Your task to perform on an android device: open app "Nova Launcher" Image 0: 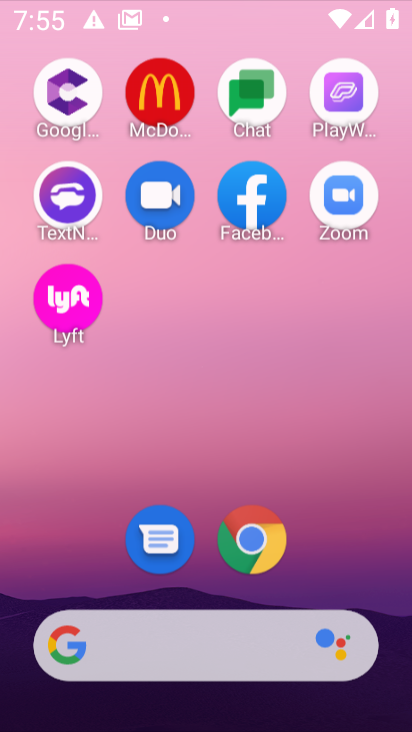
Step 0: press home button
Your task to perform on an android device: open app "Nova Launcher" Image 1: 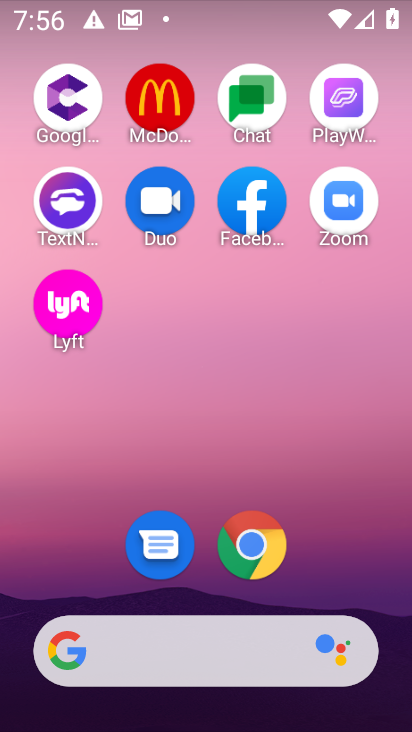
Step 1: drag from (360, 579) to (351, 87)
Your task to perform on an android device: open app "Nova Launcher" Image 2: 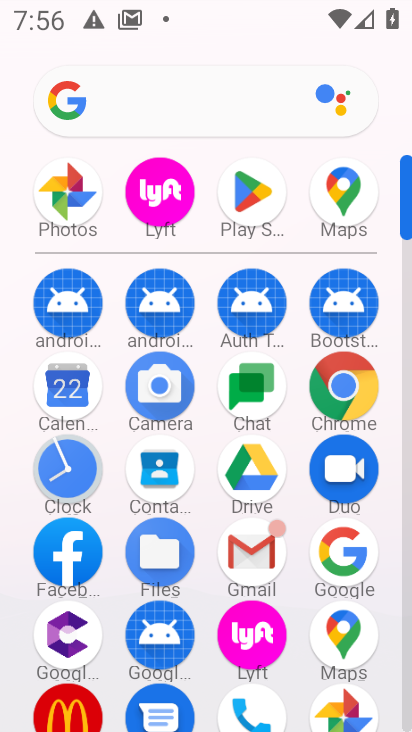
Step 2: click (247, 204)
Your task to perform on an android device: open app "Nova Launcher" Image 3: 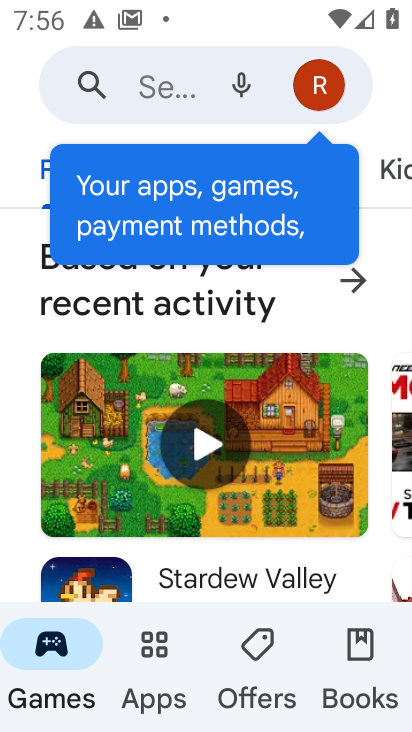
Step 3: click (188, 85)
Your task to perform on an android device: open app "Nova Launcher" Image 4: 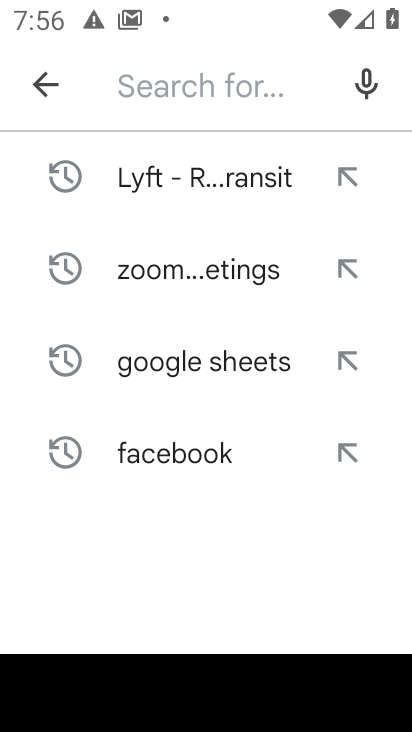
Step 4: type "nova launcher"
Your task to perform on an android device: open app "Nova Launcher" Image 5: 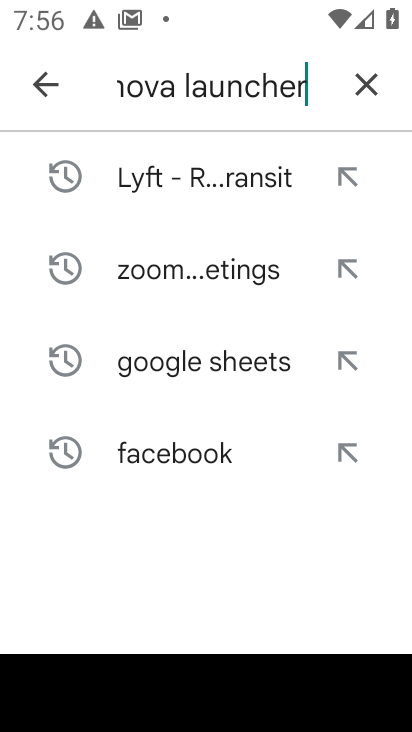
Step 5: press enter
Your task to perform on an android device: open app "Nova Launcher" Image 6: 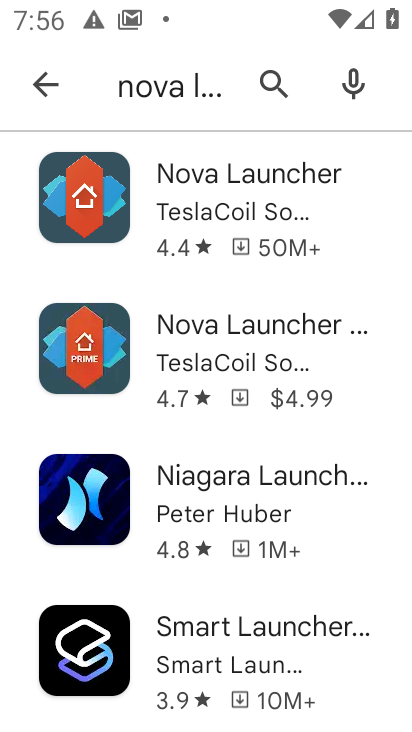
Step 6: click (224, 198)
Your task to perform on an android device: open app "Nova Launcher" Image 7: 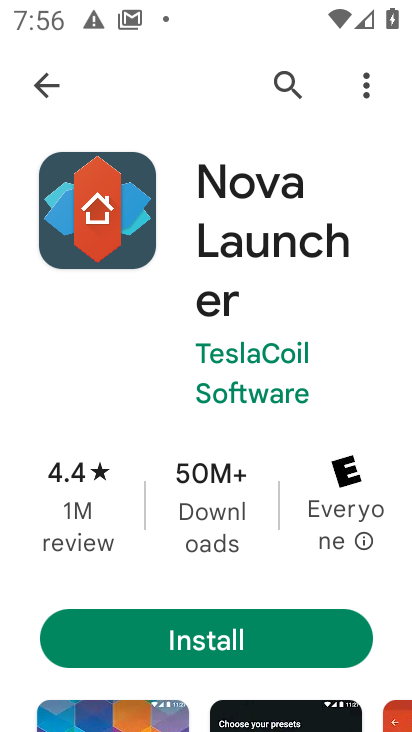
Step 7: task complete